Your task to perform on an android device: open chrome privacy settings Image 0: 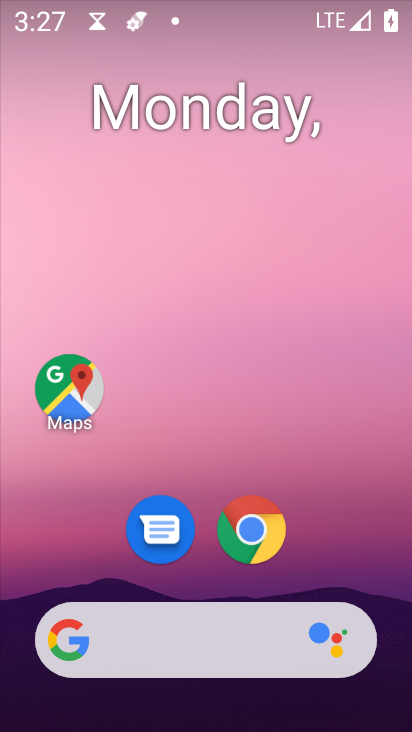
Step 0: click (257, 536)
Your task to perform on an android device: open chrome privacy settings Image 1: 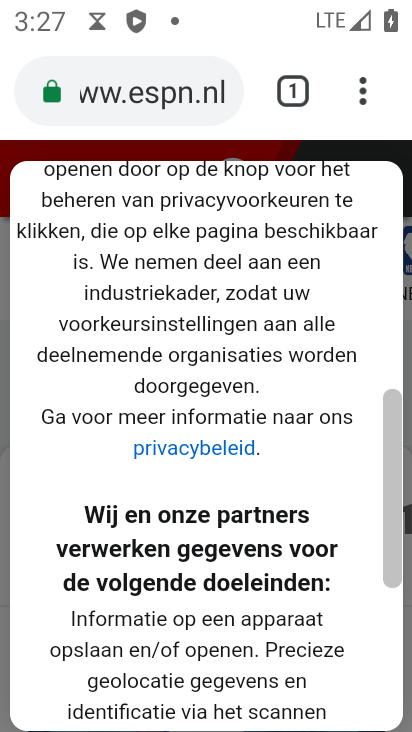
Step 1: click (371, 89)
Your task to perform on an android device: open chrome privacy settings Image 2: 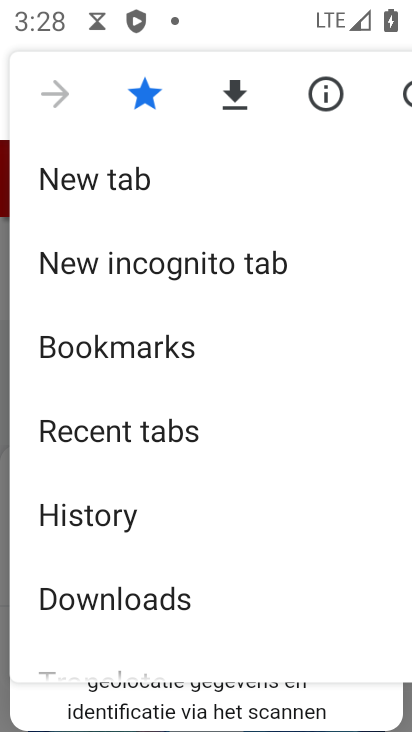
Step 2: drag from (146, 521) to (176, 242)
Your task to perform on an android device: open chrome privacy settings Image 3: 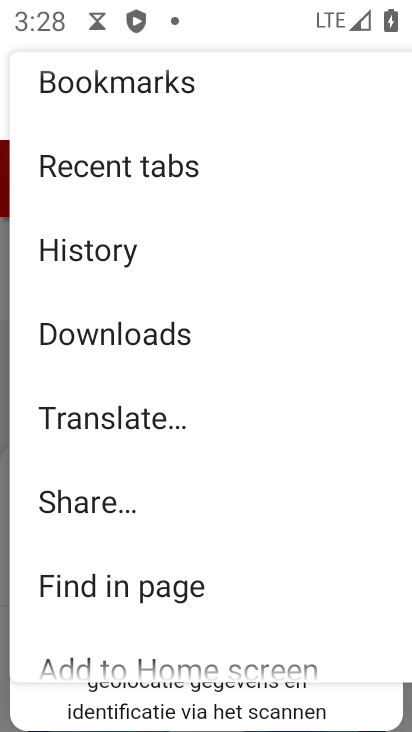
Step 3: drag from (113, 510) to (230, 47)
Your task to perform on an android device: open chrome privacy settings Image 4: 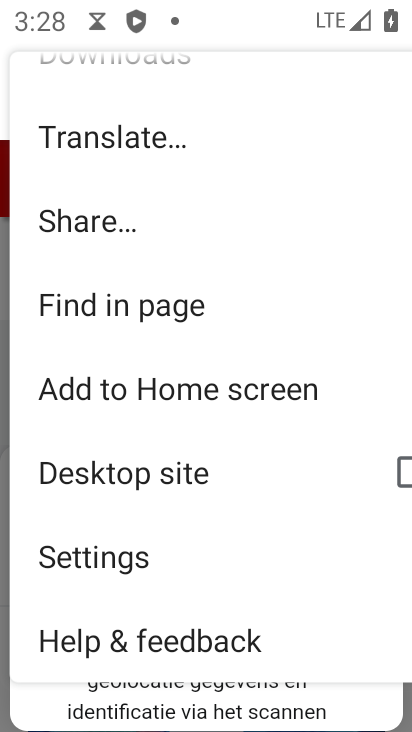
Step 4: click (100, 565)
Your task to perform on an android device: open chrome privacy settings Image 5: 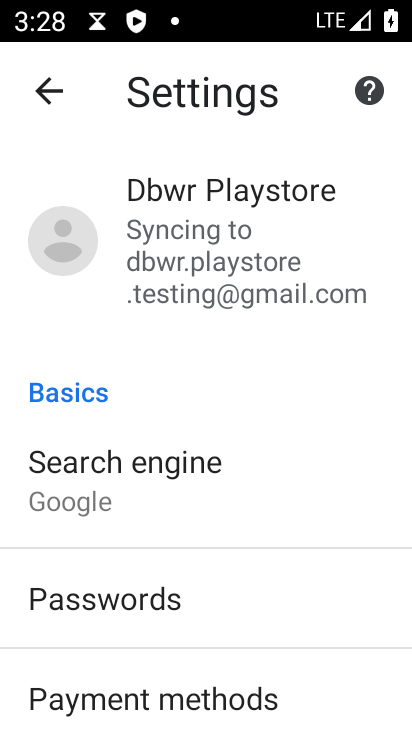
Step 5: drag from (116, 592) to (156, 309)
Your task to perform on an android device: open chrome privacy settings Image 6: 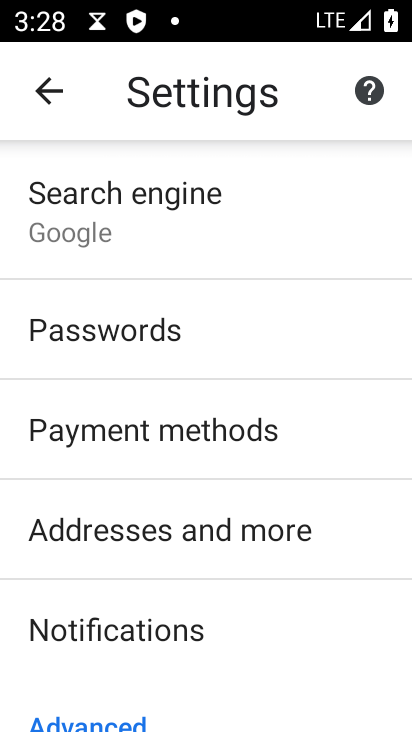
Step 6: drag from (132, 544) to (201, 287)
Your task to perform on an android device: open chrome privacy settings Image 7: 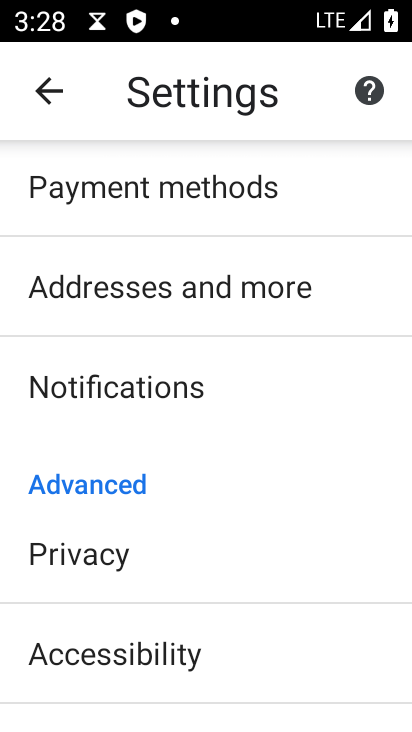
Step 7: click (106, 557)
Your task to perform on an android device: open chrome privacy settings Image 8: 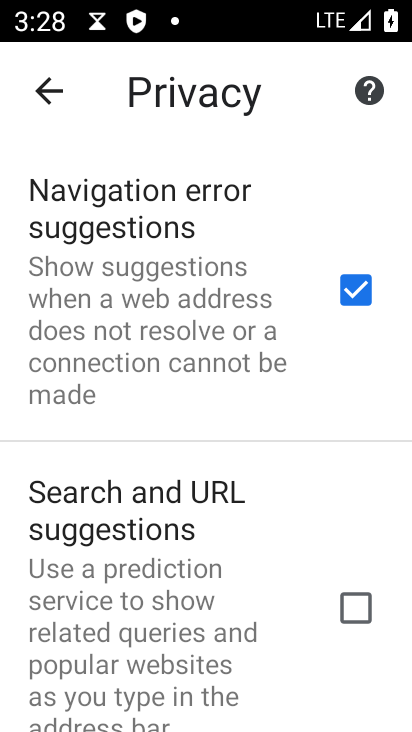
Step 8: task complete